Your task to perform on an android device: open a new tab in the chrome app Image 0: 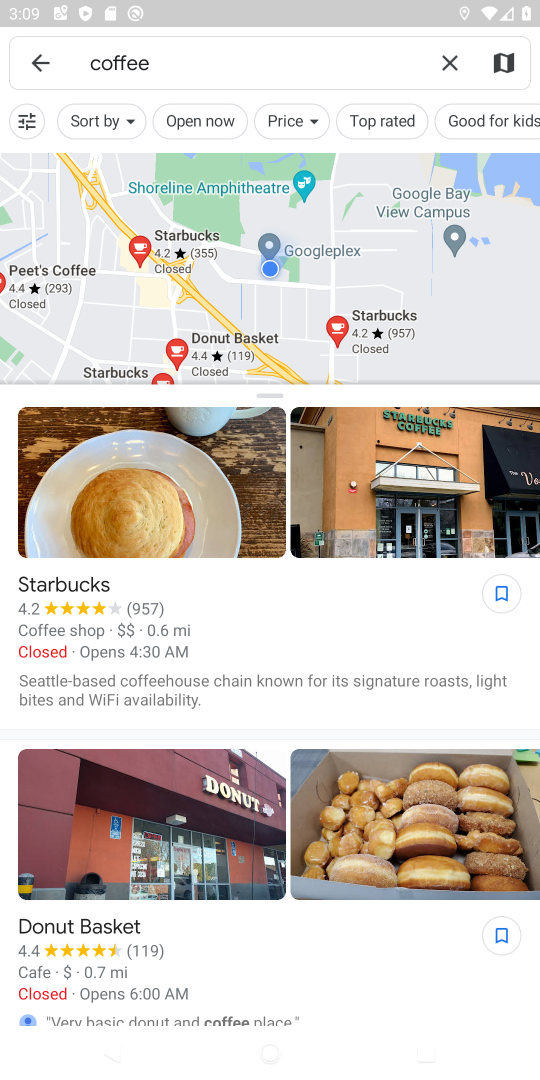
Step 0: press home button
Your task to perform on an android device: open a new tab in the chrome app Image 1: 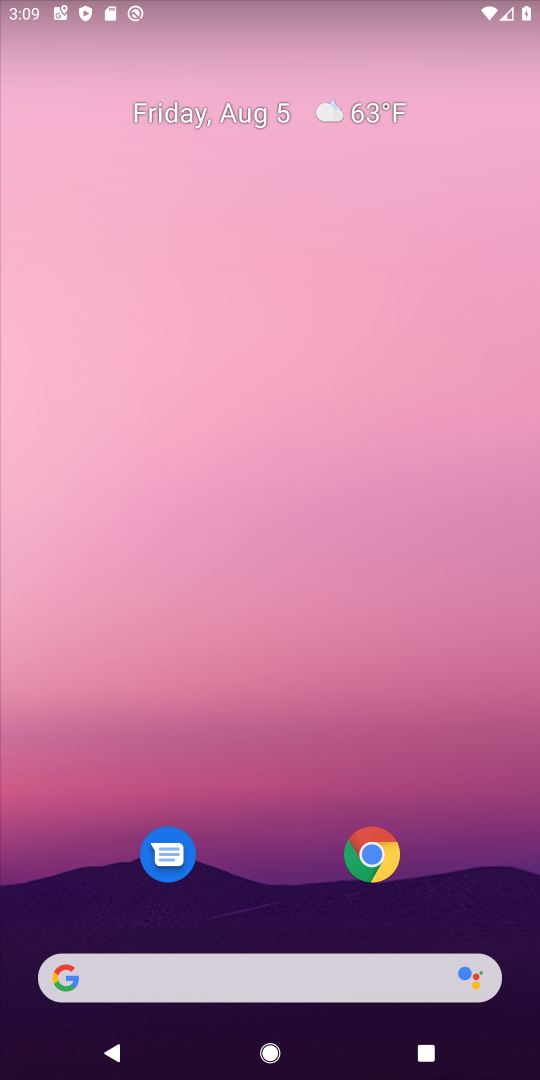
Step 1: click (389, 860)
Your task to perform on an android device: open a new tab in the chrome app Image 2: 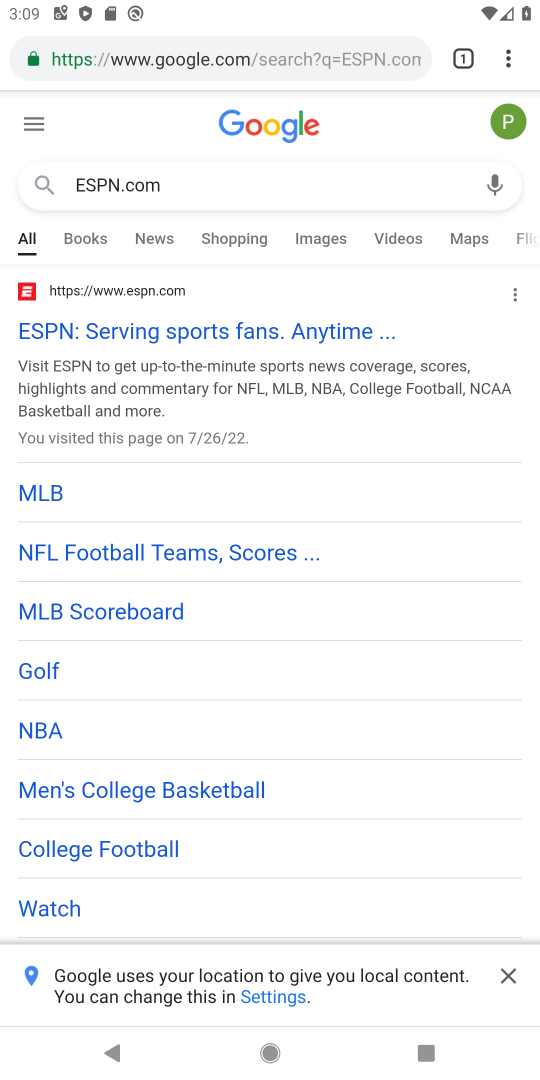
Step 2: click (516, 69)
Your task to perform on an android device: open a new tab in the chrome app Image 3: 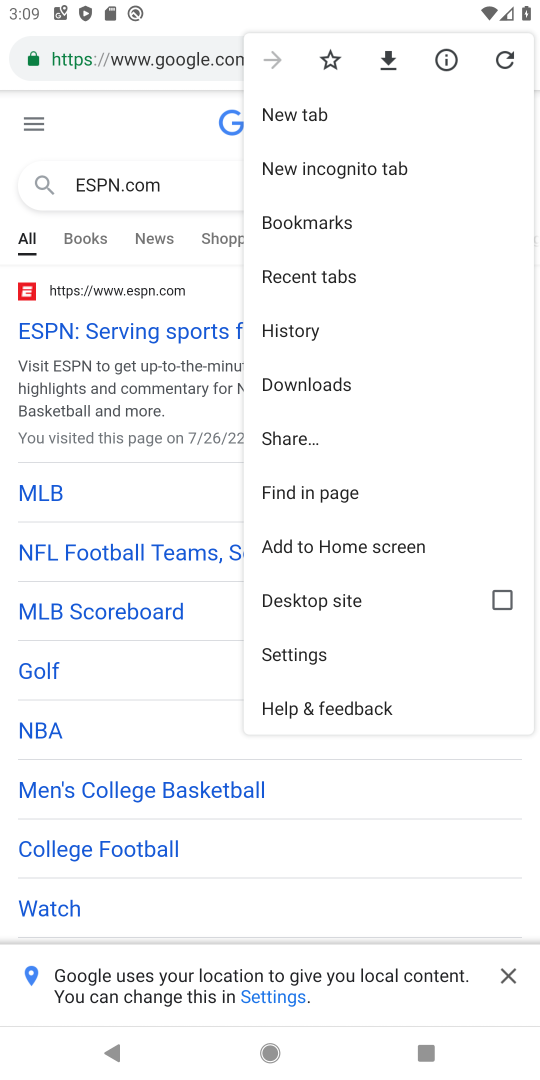
Step 3: click (312, 109)
Your task to perform on an android device: open a new tab in the chrome app Image 4: 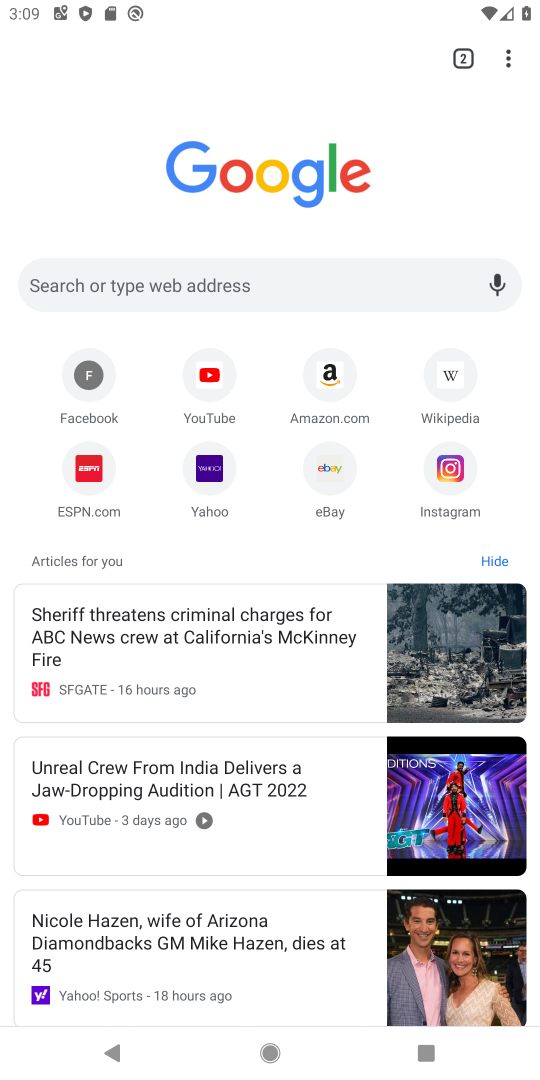
Step 4: task complete